Your task to perform on an android device: open a new tab in the chrome app Image 0: 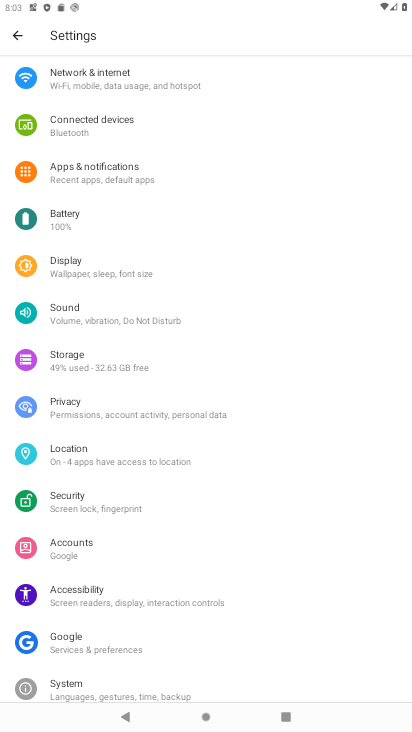
Step 0: press home button
Your task to perform on an android device: open a new tab in the chrome app Image 1: 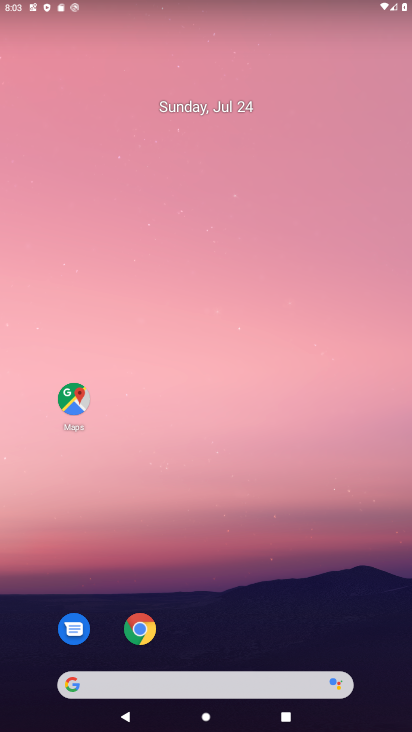
Step 1: click (149, 637)
Your task to perform on an android device: open a new tab in the chrome app Image 2: 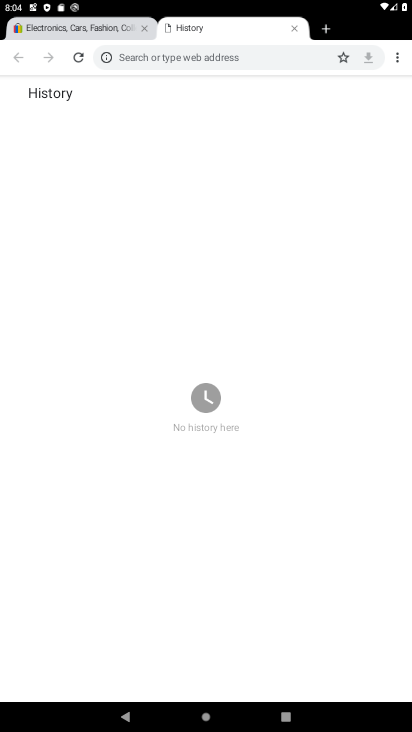
Step 2: press back button
Your task to perform on an android device: open a new tab in the chrome app Image 3: 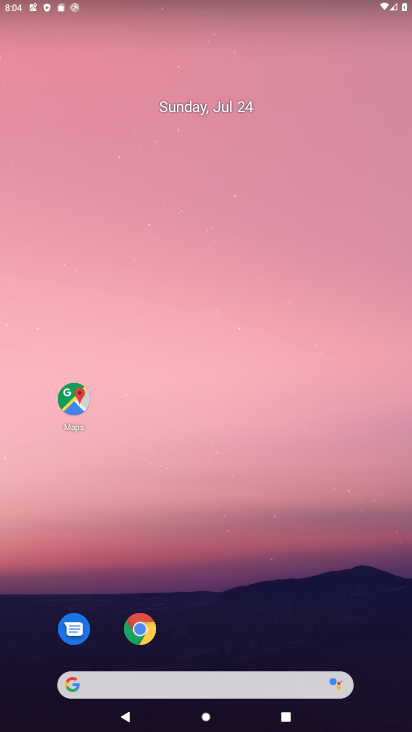
Step 3: click (150, 629)
Your task to perform on an android device: open a new tab in the chrome app Image 4: 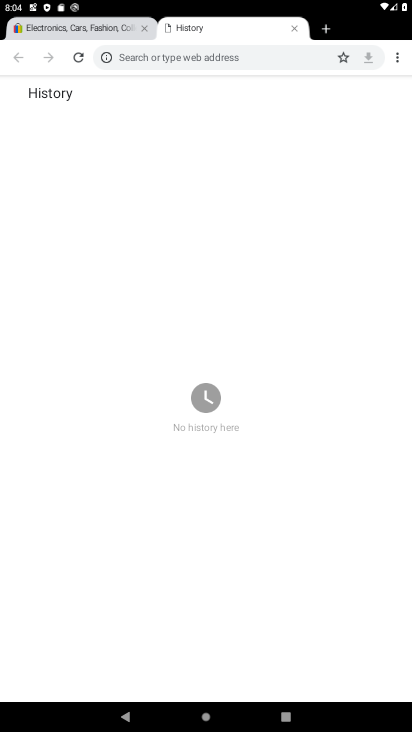
Step 4: click (92, 29)
Your task to perform on an android device: open a new tab in the chrome app Image 5: 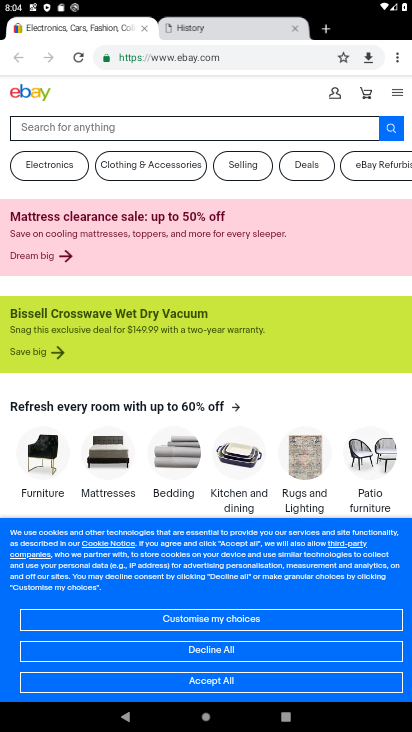
Step 5: click (328, 29)
Your task to perform on an android device: open a new tab in the chrome app Image 6: 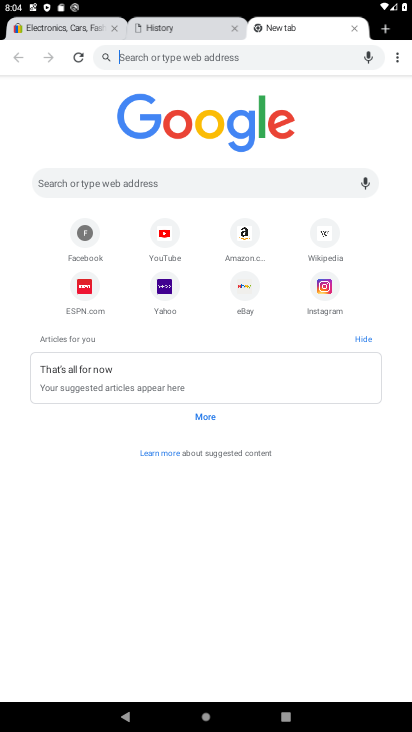
Step 6: task complete